Your task to perform on an android device: View the shopping cart on amazon.com. Search for usb-c to usb-a on amazon.com, select the first entry, and add it to the cart. Image 0: 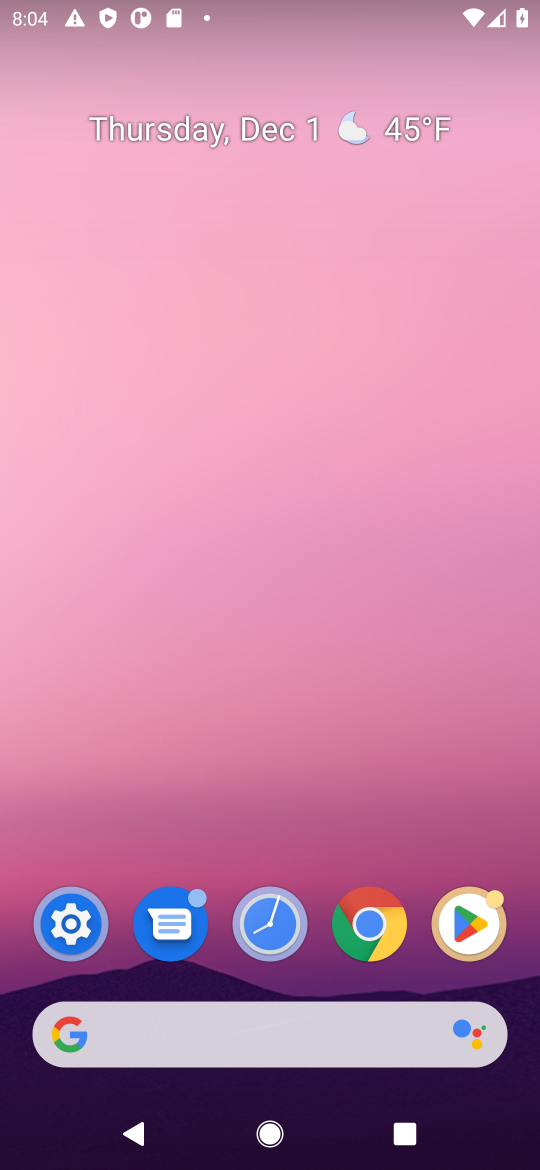
Step 0: click (313, 1031)
Your task to perform on an android device: View the shopping cart on amazon.com. Search for usb-c to usb-a on amazon.com, select the first entry, and add it to the cart. Image 1: 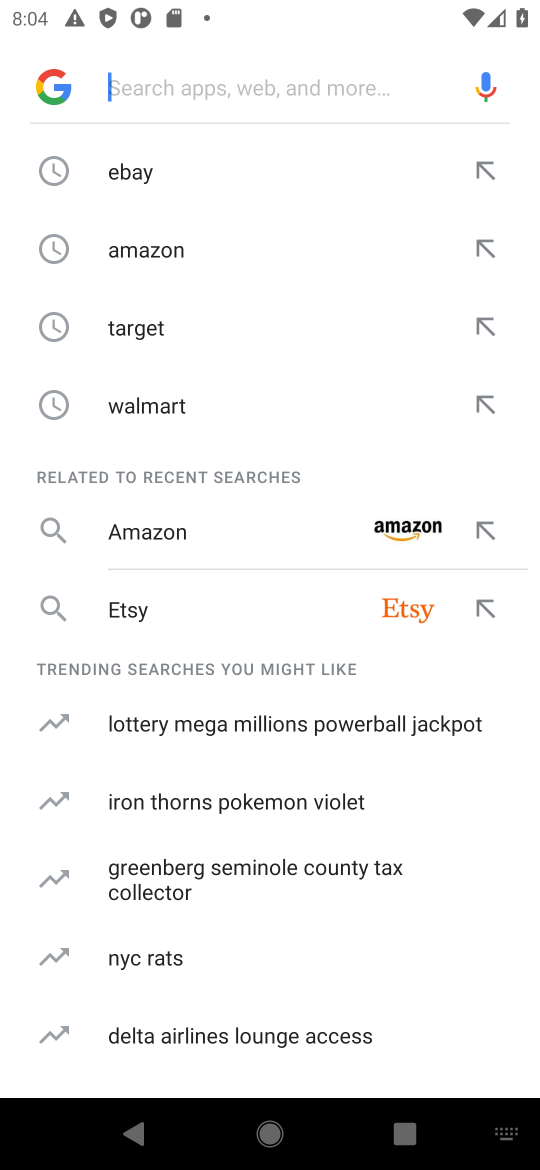
Step 1: click (353, 535)
Your task to perform on an android device: View the shopping cart on amazon.com. Search for usb-c to usb-a on amazon.com, select the first entry, and add it to the cart. Image 2: 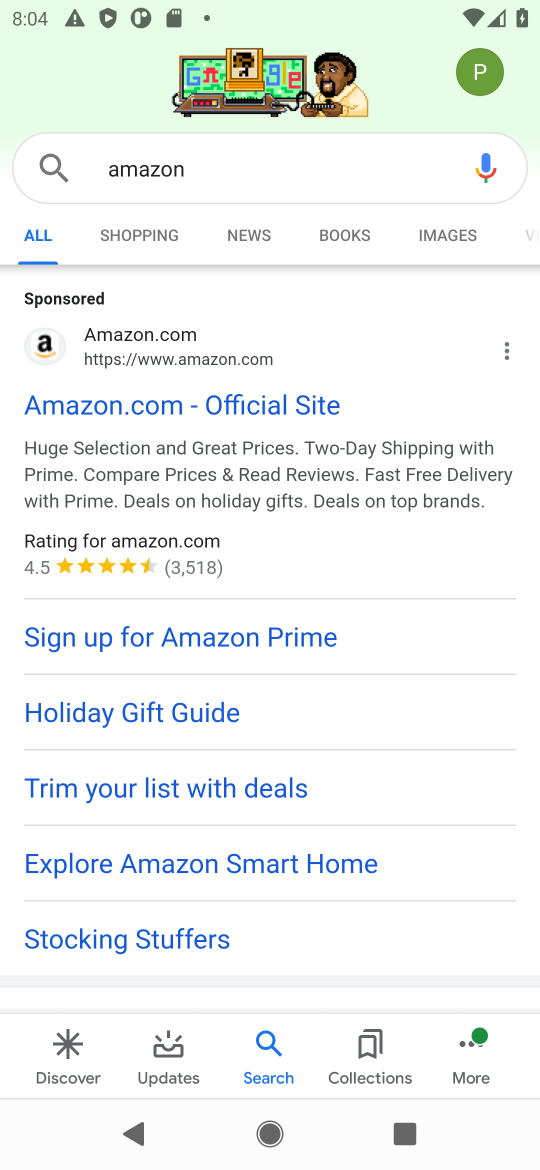
Step 2: click (219, 402)
Your task to perform on an android device: View the shopping cart on amazon.com. Search for usb-c to usb-a on amazon.com, select the first entry, and add it to the cart. Image 3: 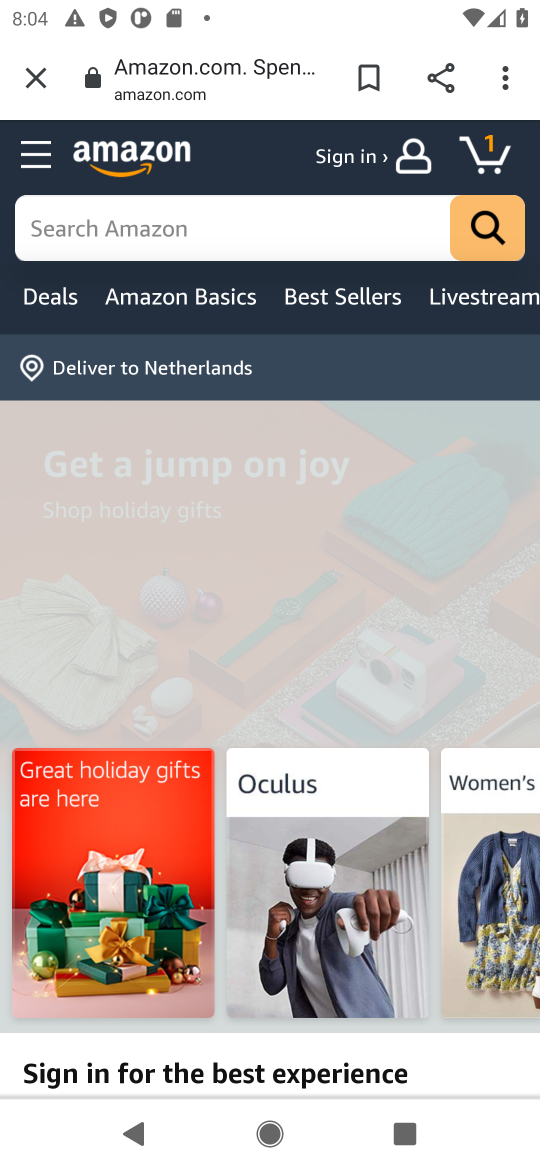
Step 3: click (193, 217)
Your task to perform on an android device: View the shopping cart on amazon.com. Search for usb-c to usb-a on amazon.com, select the first entry, and add it to the cart. Image 4: 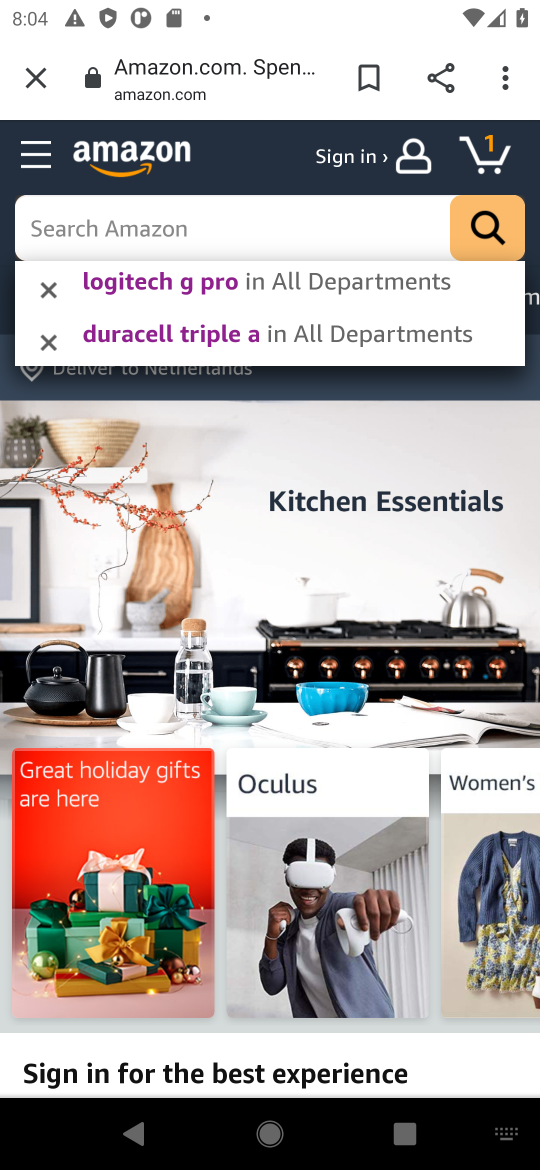
Step 4: type "usb-c to usb-a"
Your task to perform on an android device: View the shopping cart on amazon.com. Search for usb-c to usb-a on amazon.com, select the first entry, and add it to the cart. Image 5: 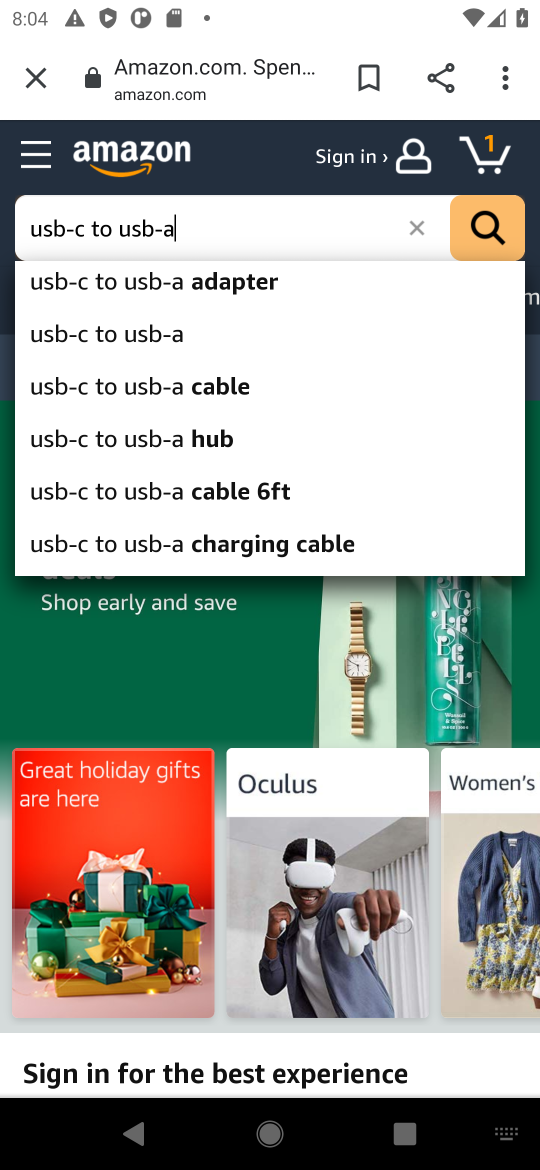
Step 5: click (110, 343)
Your task to perform on an android device: View the shopping cart on amazon.com. Search for usb-c to usb-a on amazon.com, select the first entry, and add it to the cart. Image 6: 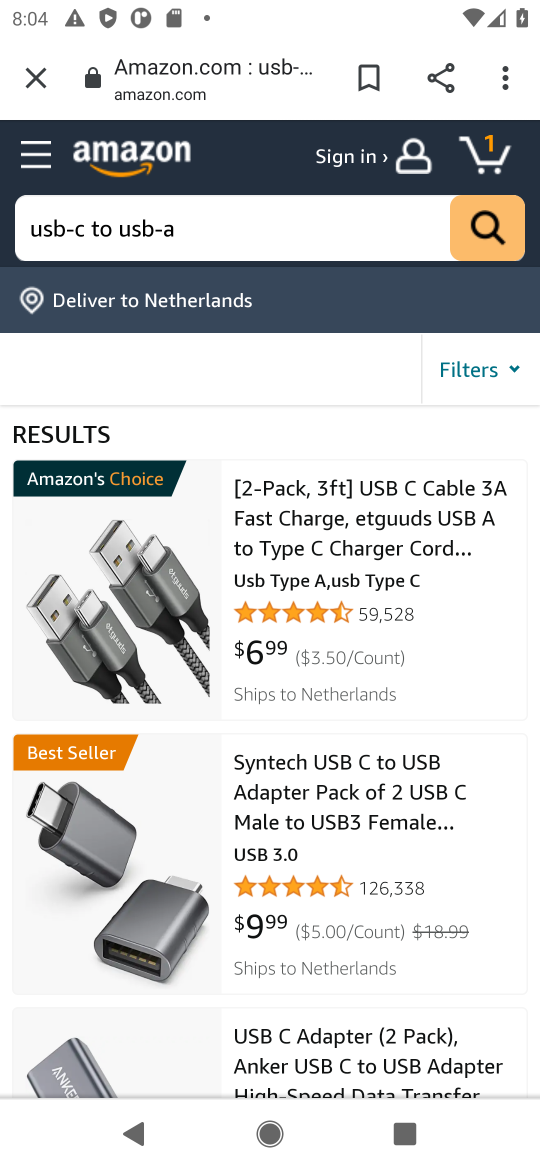
Step 6: click (471, 224)
Your task to perform on an android device: View the shopping cart on amazon.com. Search for usb-c to usb-a on amazon.com, select the first entry, and add it to the cart. Image 7: 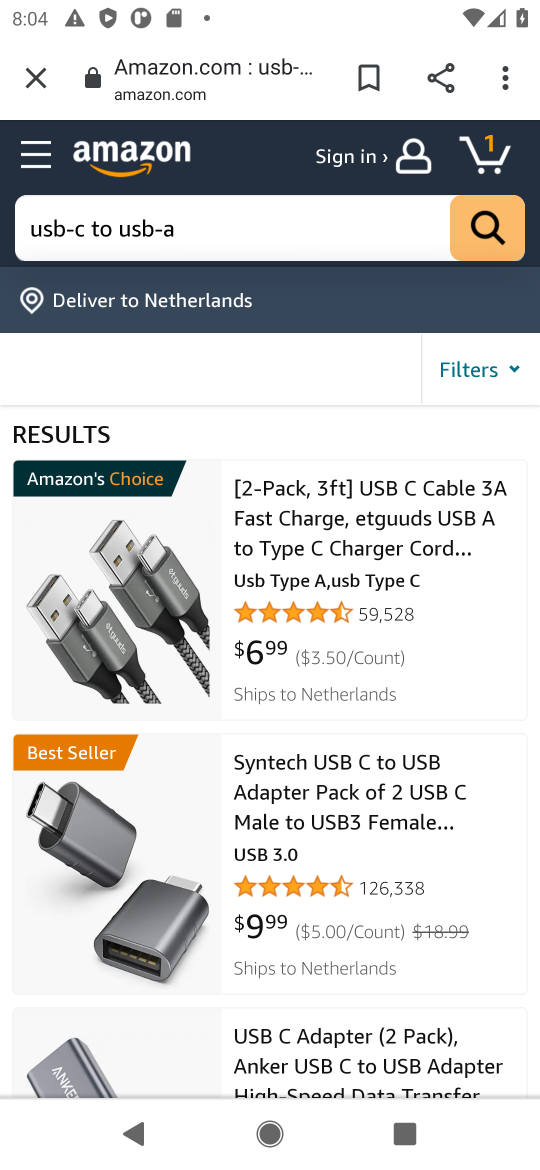
Step 7: click (442, 511)
Your task to perform on an android device: View the shopping cart on amazon.com. Search for usb-c to usb-a on amazon.com, select the first entry, and add it to the cart. Image 8: 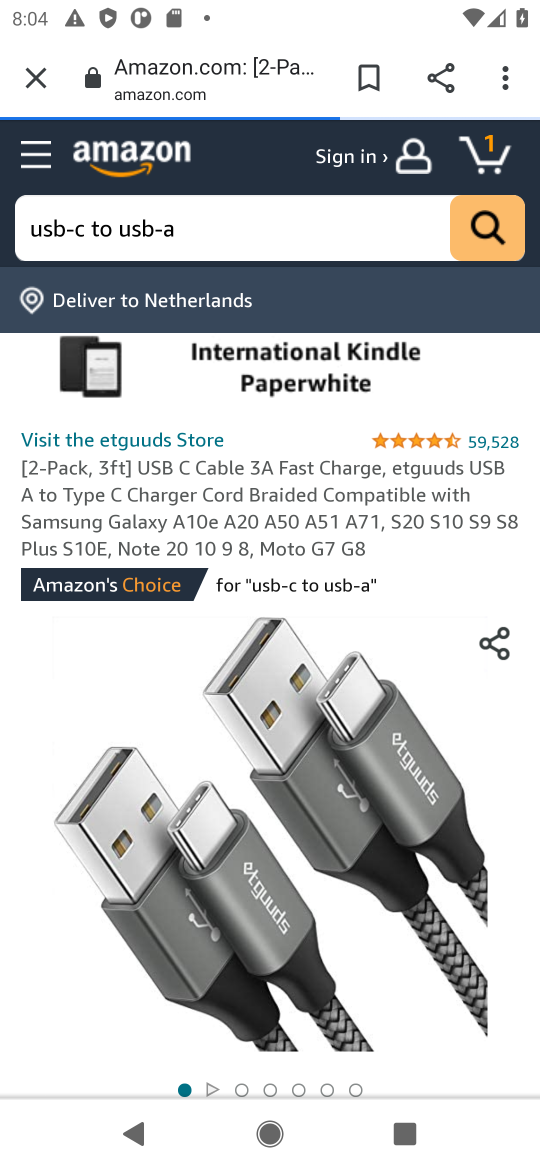
Step 8: drag from (296, 939) to (68, 305)
Your task to perform on an android device: View the shopping cart on amazon.com. Search for usb-c to usb-a on amazon.com, select the first entry, and add it to the cart. Image 9: 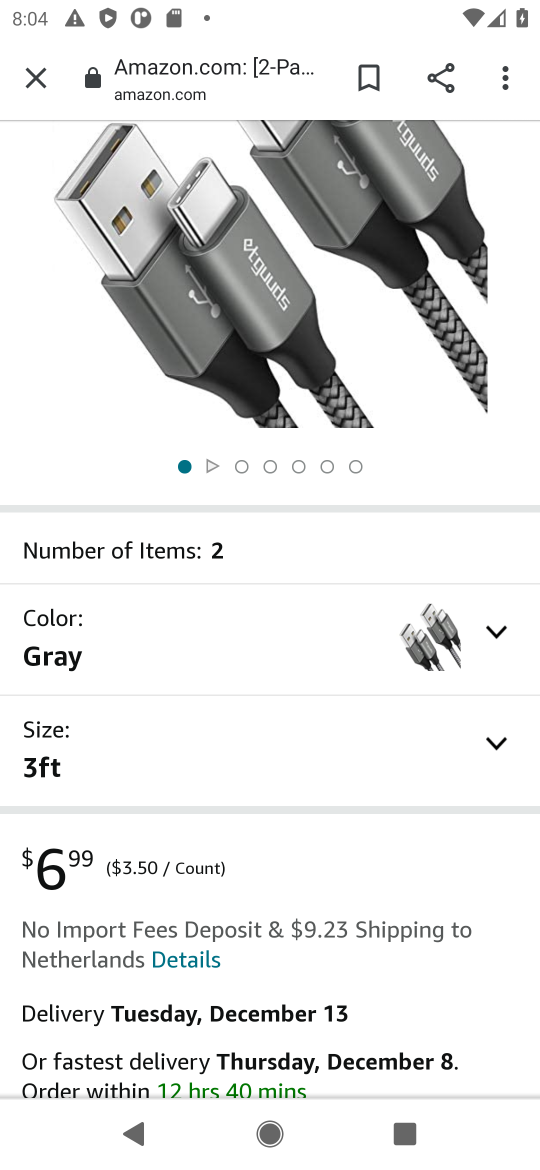
Step 9: drag from (354, 878) to (388, 240)
Your task to perform on an android device: View the shopping cart on amazon.com. Search for usb-c to usb-a on amazon.com, select the first entry, and add it to the cart. Image 10: 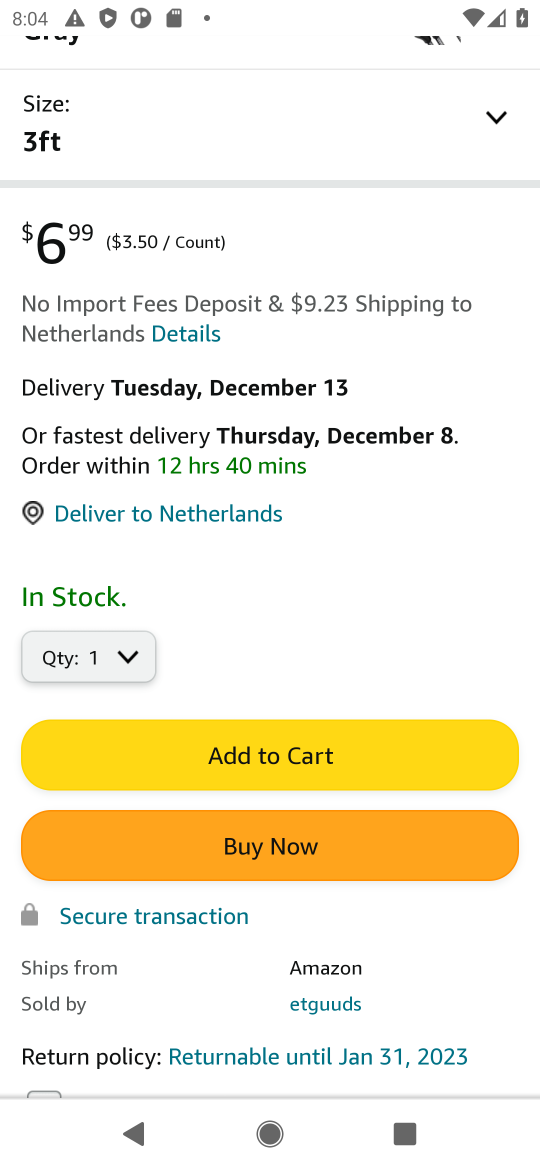
Step 10: click (414, 749)
Your task to perform on an android device: View the shopping cart on amazon.com. Search for usb-c to usb-a on amazon.com, select the first entry, and add it to the cart. Image 11: 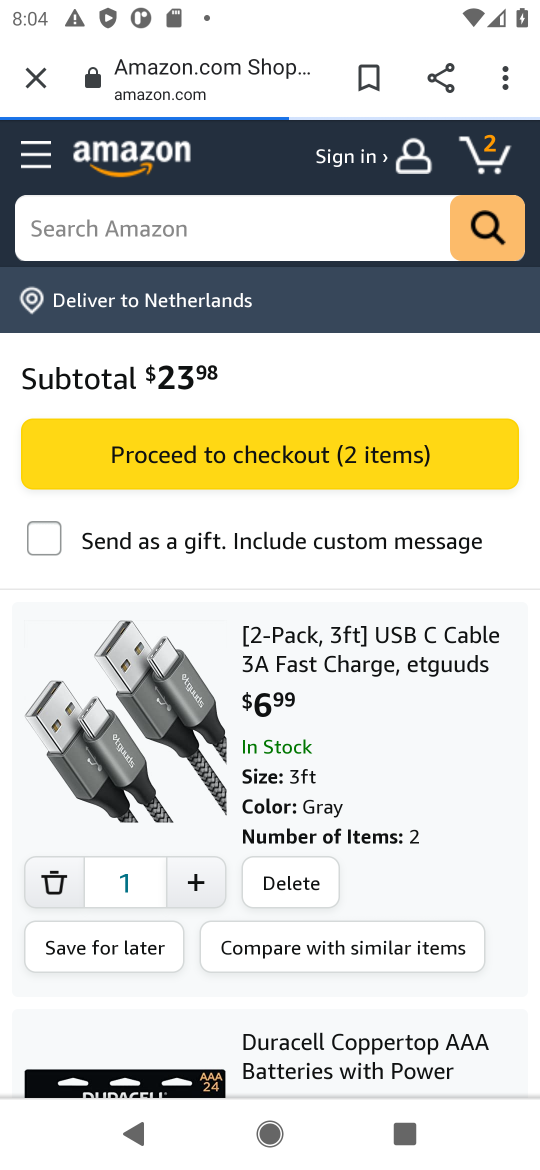
Step 11: task complete